Your task to perform on an android device: What is the news today? Image 0: 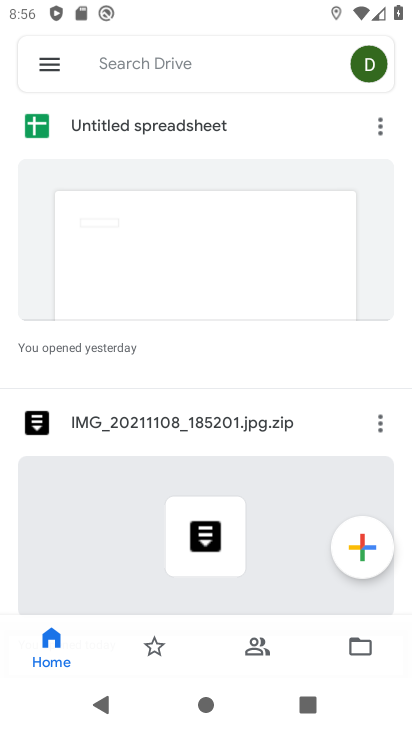
Step 0: press home button
Your task to perform on an android device: What is the news today? Image 1: 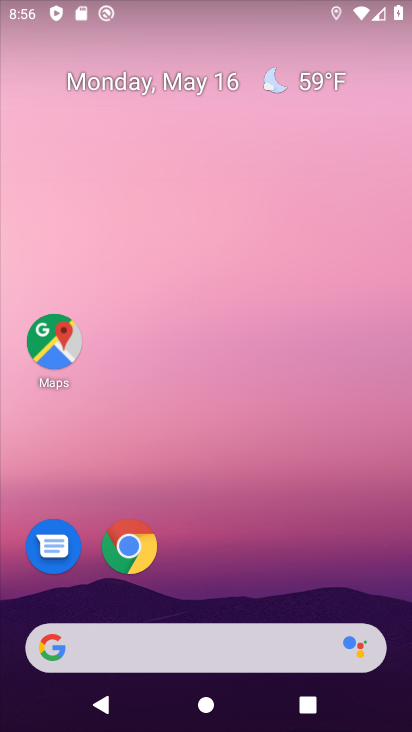
Step 1: drag from (298, 505) to (316, 25)
Your task to perform on an android device: What is the news today? Image 2: 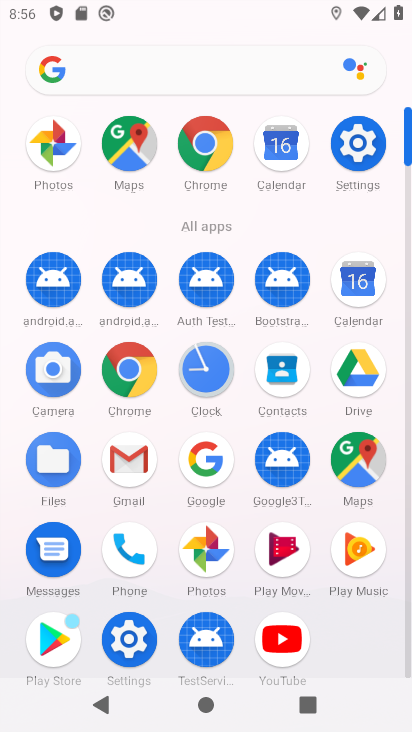
Step 2: click (231, 162)
Your task to perform on an android device: What is the news today? Image 3: 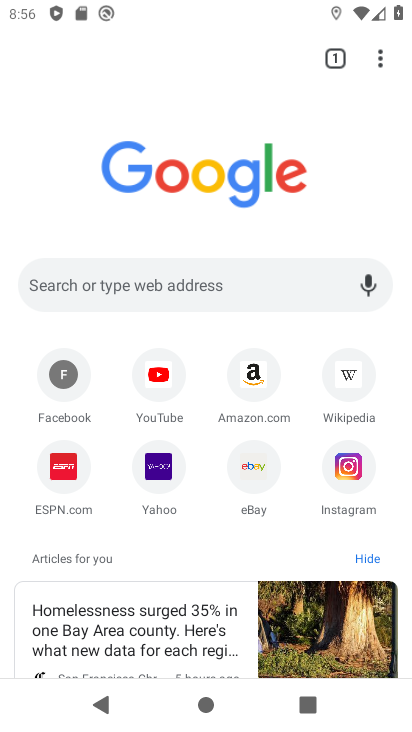
Step 3: task complete